Your task to perform on an android device: Turn off the flashlight Image 0: 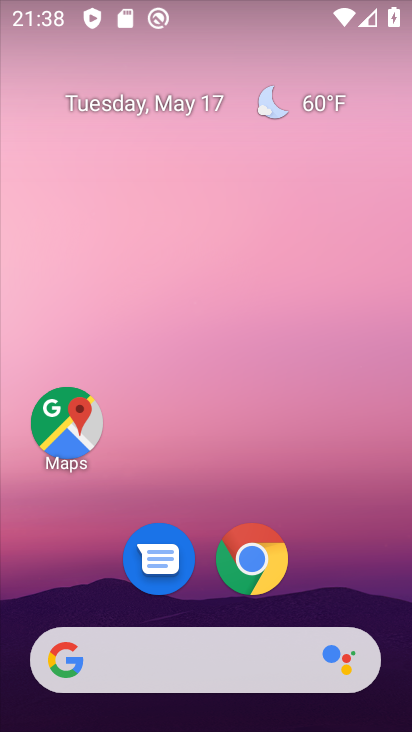
Step 0: drag from (369, 560) to (269, 64)
Your task to perform on an android device: Turn off the flashlight Image 1: 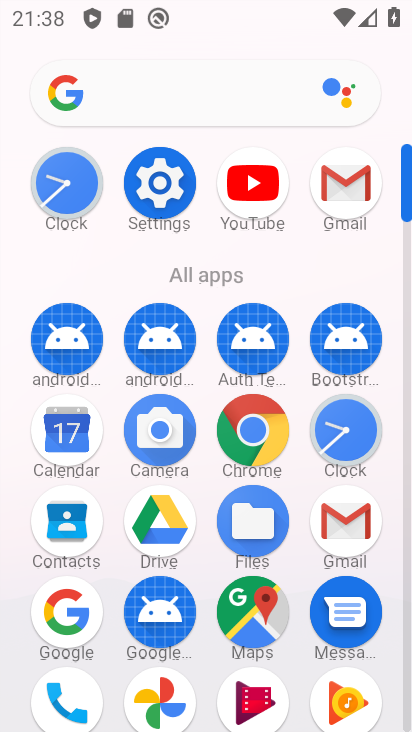
Step 1: click (153, 182)
Your task to perform on an android device: Turn off the flashlight Image 2: 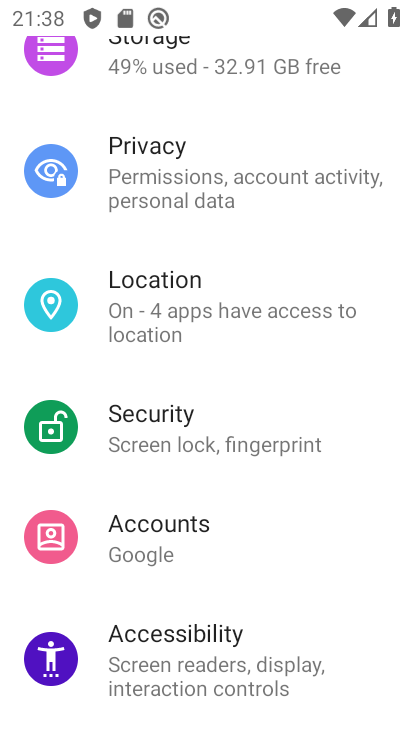
Step 2: drag from (249, 151) to (256, 636)
Your task to perform on an android device: Turn off the flashlight Image 3: 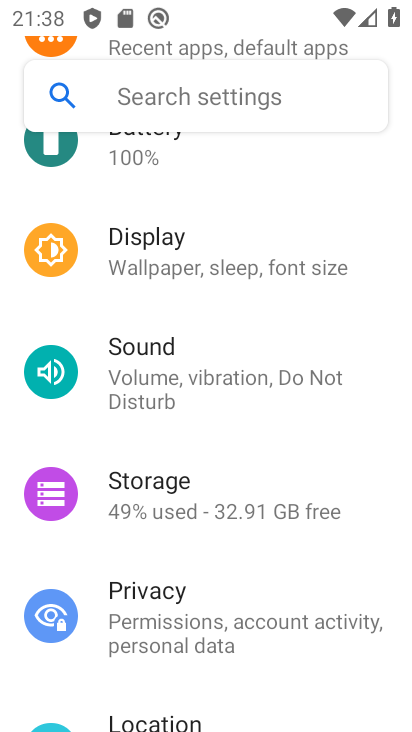
Step 3: drag from (267, 192) to (290, 620)
Your task to perform on an android device: Turn off the flashlight Image 4: 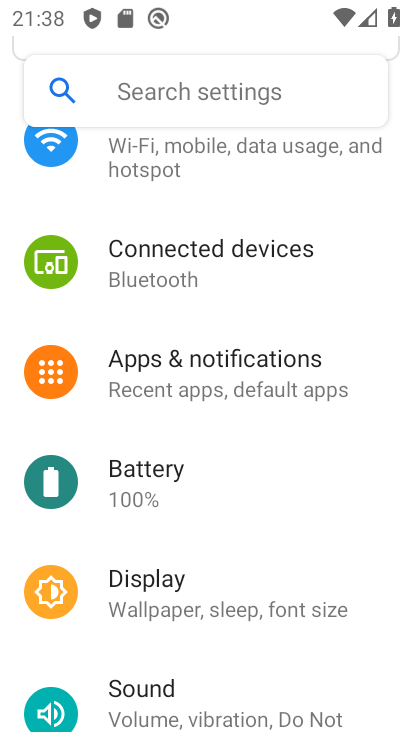
Step 4: click (249, 208)
Your task to perform on an android device: Turn off the flashlight Image 5: 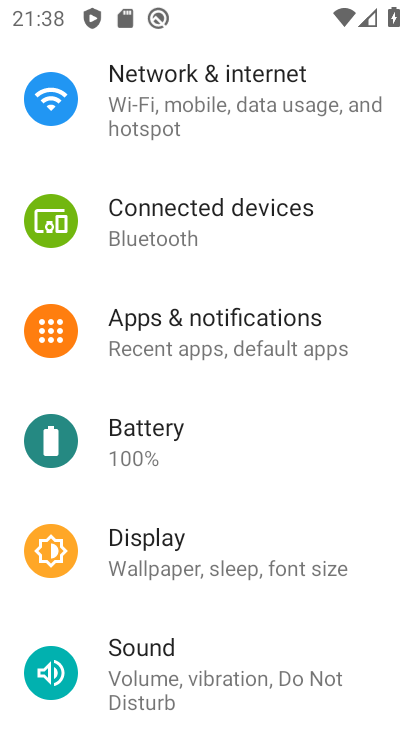
Step 5: click (159, 550)
Your task to perform on an android device: Turn off the flashlight Image 6: 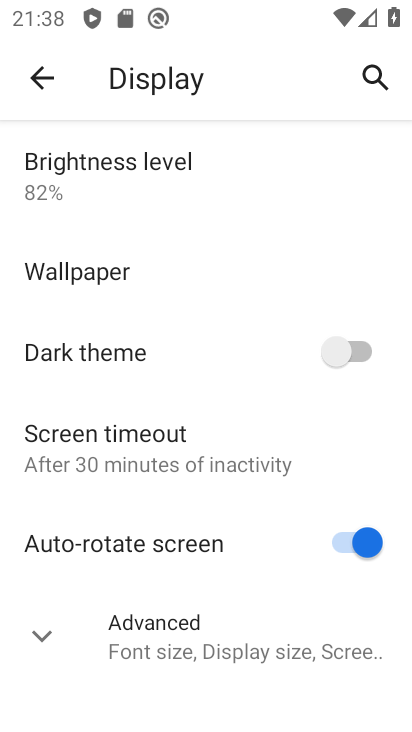
Step 6: task complete